Your task to perform on an android device: check storage Image 0: 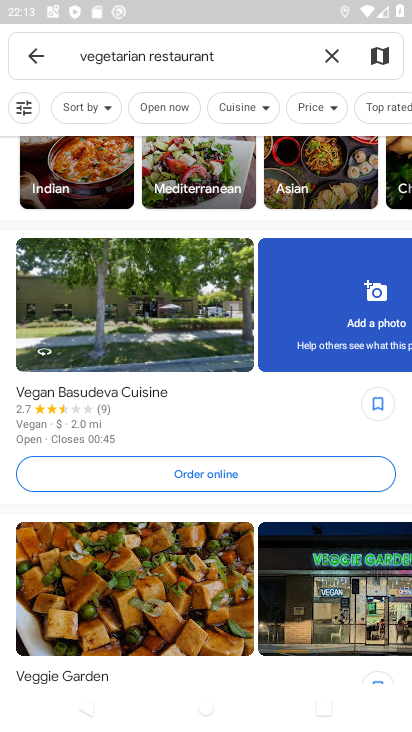
Step 0: press home button
Your task to perform on an android device: check storage Image 1: 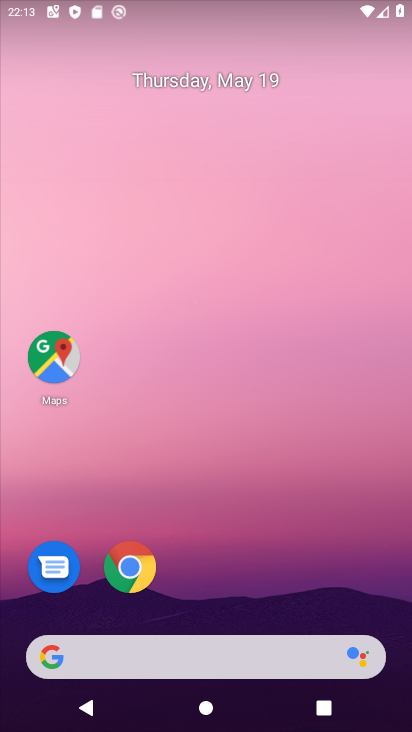
Step 1: drag from (228, 611) to (252, 199)
Your task to perform on an android device: check storage Image 2: 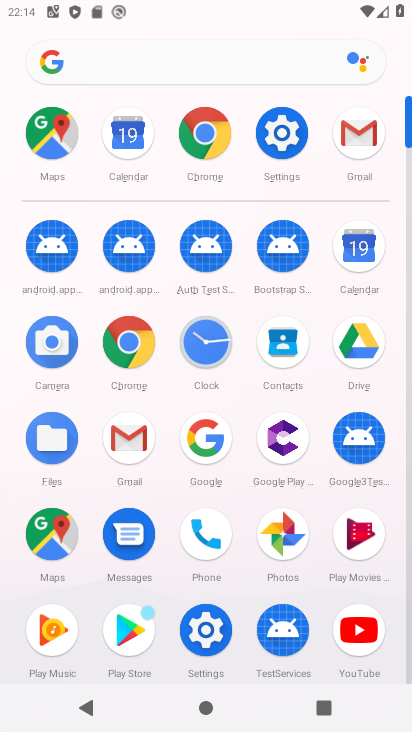
Step 2: click (287, 128)
Your task to perform on an android device: check storage Image 3: 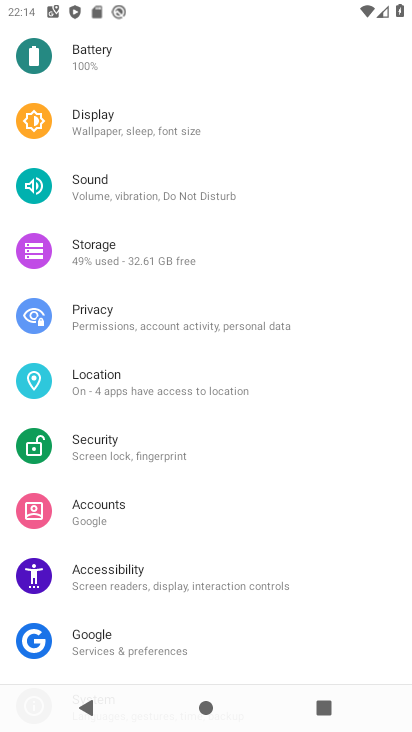
Step 3: click (141, 239)
Your task to perform on an android device: check storage Image 4: 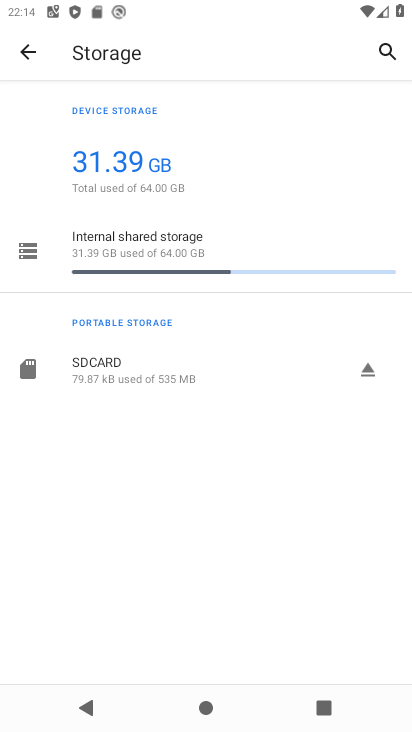
Step 4: task complete